Your task to perform on an android device: Go to sound settings Image 0: 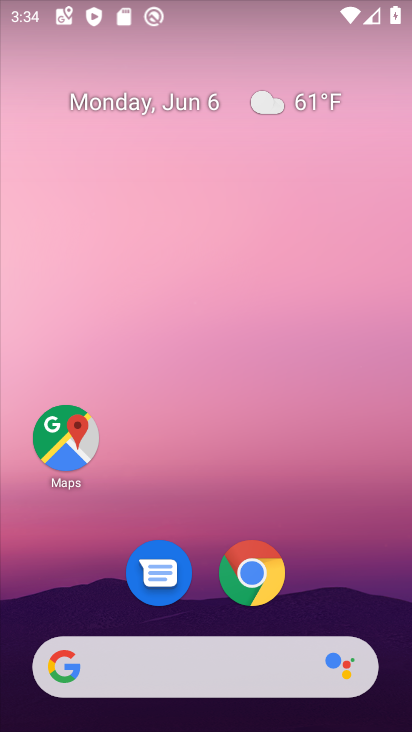
Step 0: drag from (213, 600) to (213, 127)
Your task to perform on an android device: Go to sound settings Image 1: 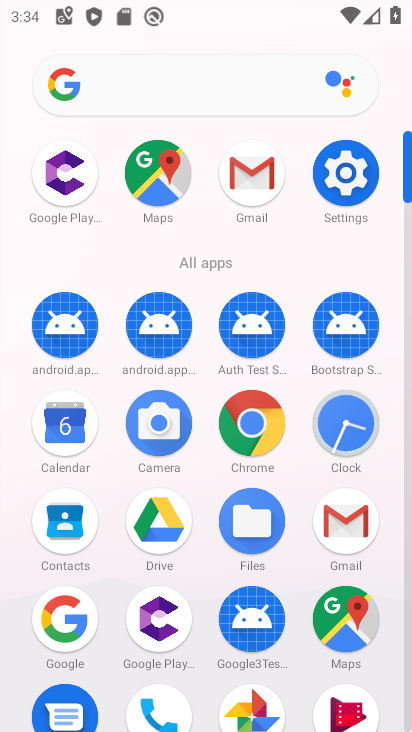
Step 1: click (326, 164)
Your task to perform on an android device: Go to sound settings Image 2: 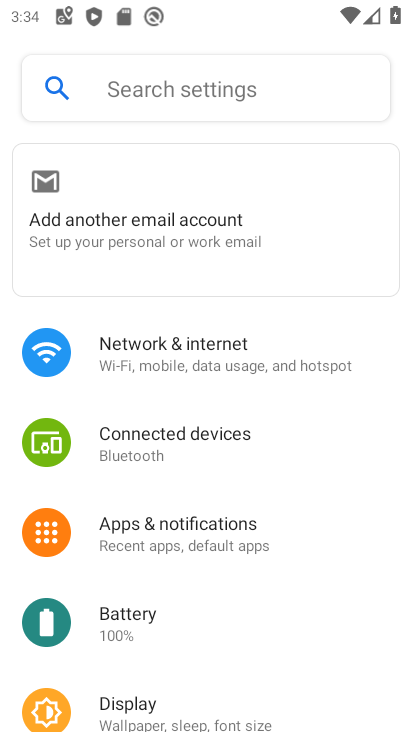
Step 2: drag from (168, 657) to (218, 256)
Your task to perform on an android device: Go to sound settings Image 3: 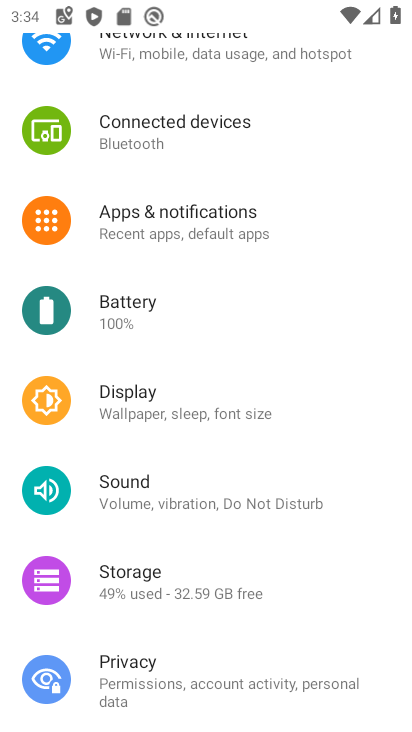
Step 3: click (127, 496)
Your task to perform on an android device: Go to sound settings Image 4: 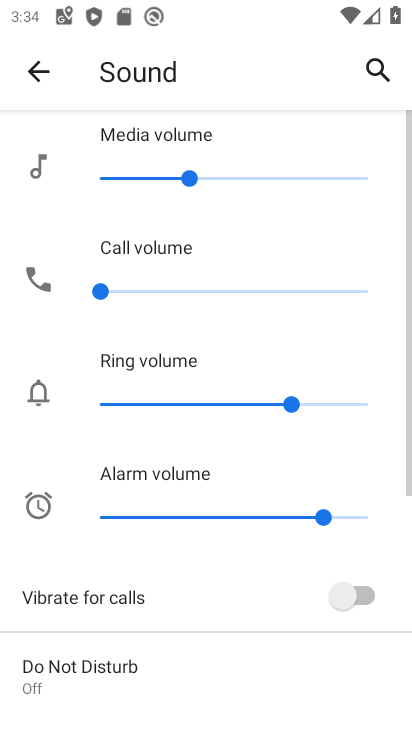
Step 4: task complete